Your task to perform on an android device: turn notification dots on Image 0: 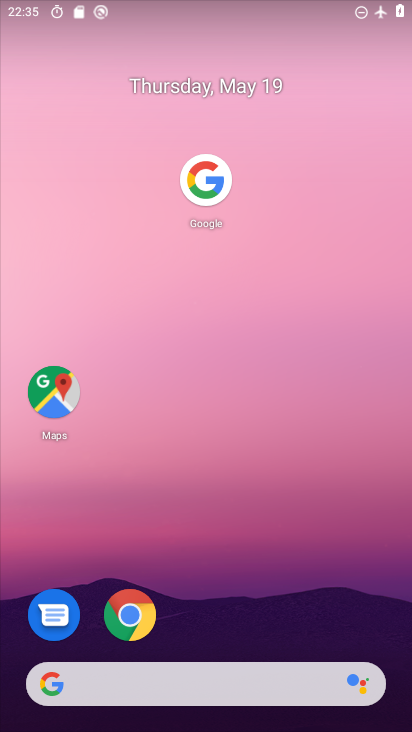
Step 0: drag from (240, 591) to (259, 60)
Your task to perform on an android device: turn notification dots on Image 1: 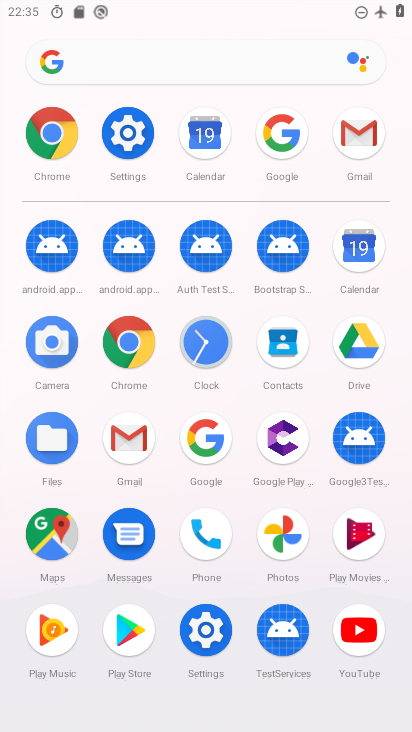
Step 1: click (127, 128)
Your task to perform on an android device: turn notification dots on Image 2: 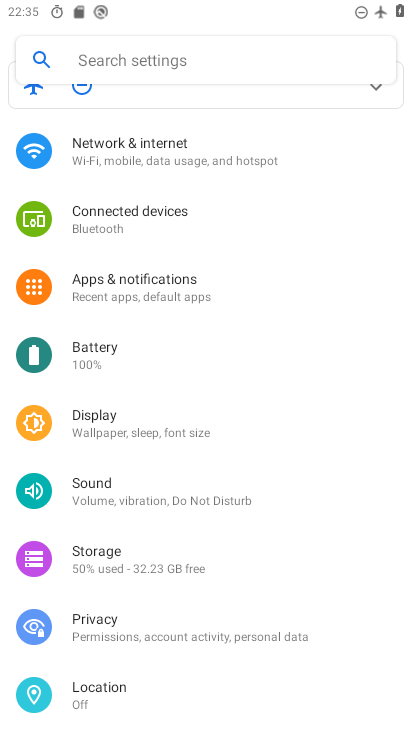
Step 2: click (168, 295)
Your task to perform on an android device: turn notification dots on Image 3: 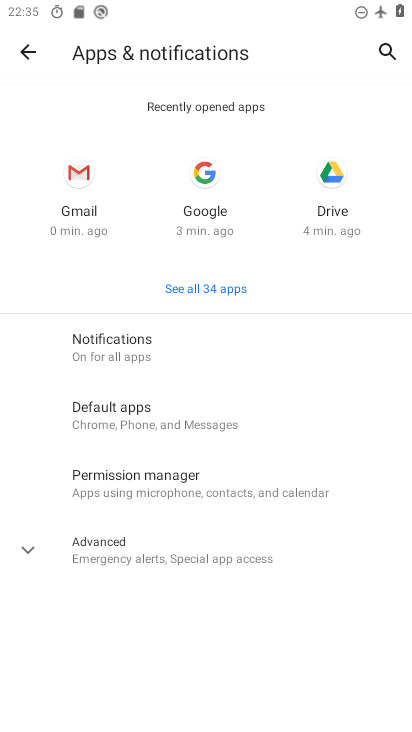
Step 3: click (115, 342)
Your task to perform on an android device: turn notification dots on Image 4: 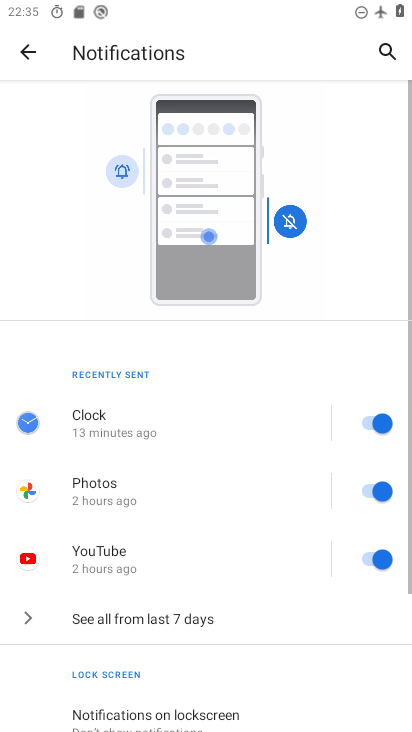
Step 4: drag from (250, 581) to (240, 111)
Your task to perform on an android device: turn notification dots on Image 5: 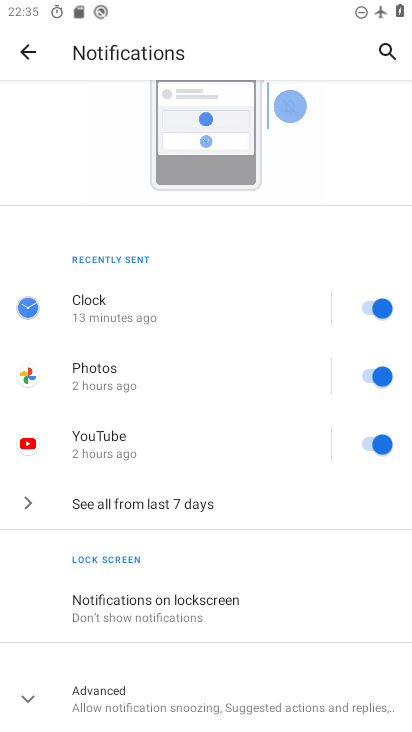
Step 5: click (128, 696)
Your task to perform on an android device: turn notification dots on Image 6: 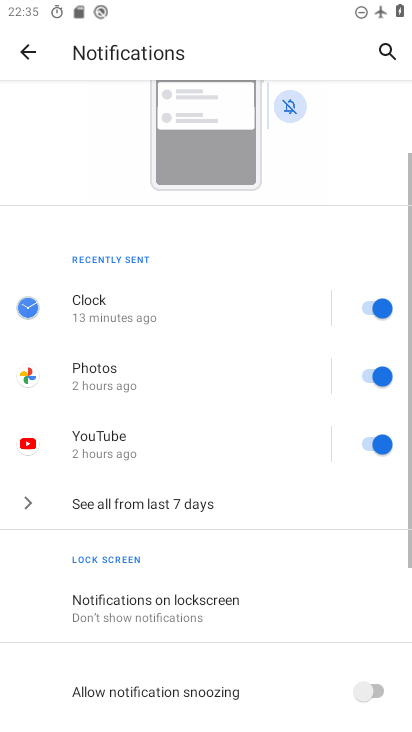
Step 6: task complete